Your task to perform on an android device: Go to Reddit.com Image 0: 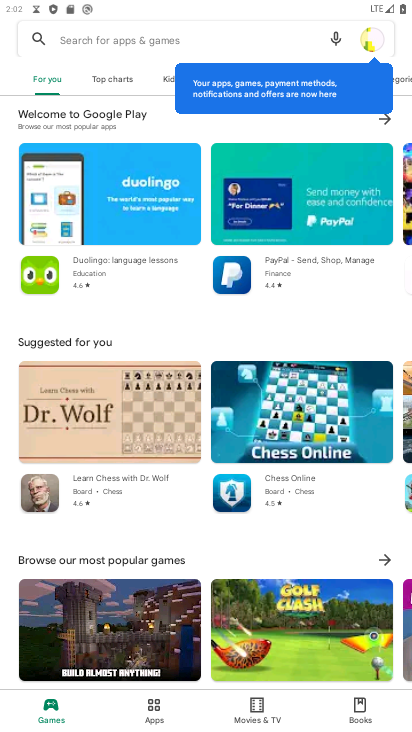
Step 0: press home button
Your task to perform on an android device: Go to Reddit.com Image 1: 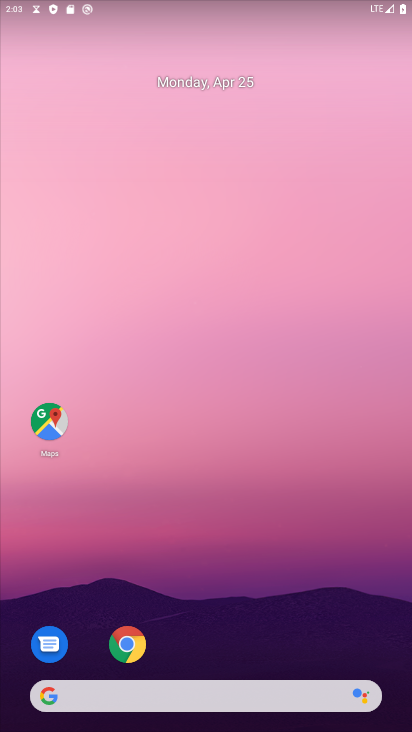
Step 1: click (131, 645)
Your task to perform on an android device: Go to Reddit.com Image 2: 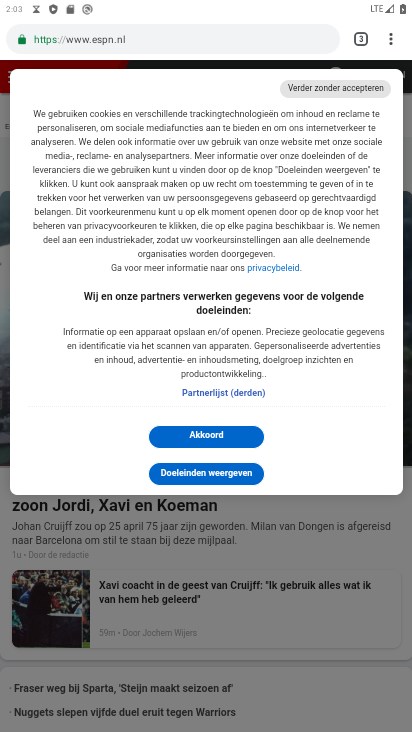
Step 2: click (100, 47)
Your task to perform on an android device: Go to Reddit.com Image 3: 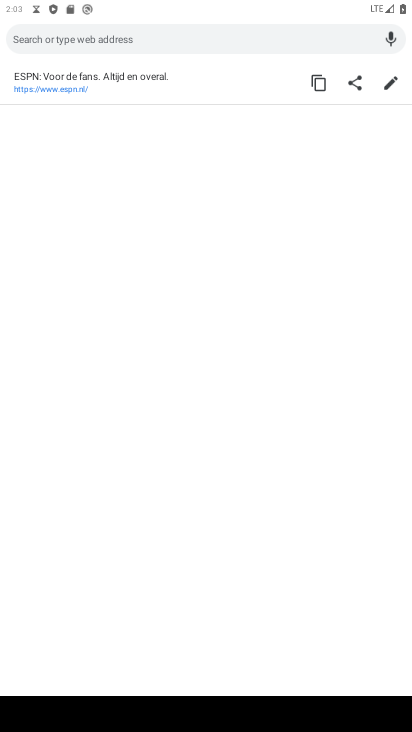
Step 3: type "reddit.com"
Your task to perform on an android device: Go to Reddit.com Image 4: 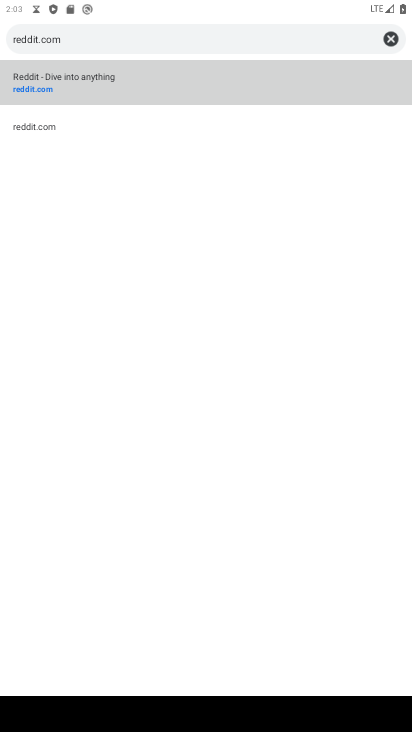
Step 4: click (32, 132)
Your task to perform on an android device: Go to Reddit.com Image 5: 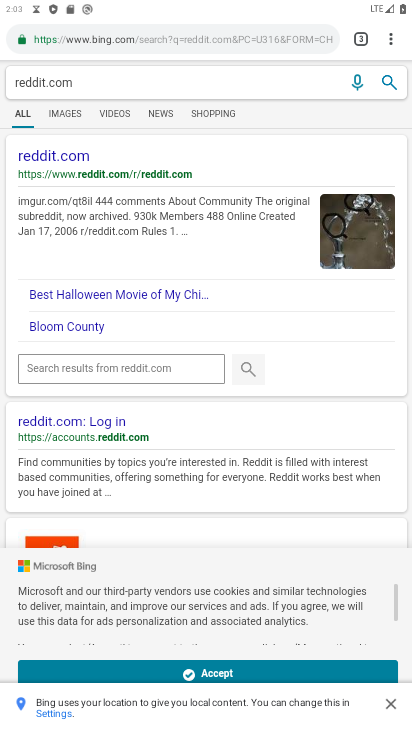
Step 5: click (40, 156)
Your task to perform on an android device: Go to Reddit.com Image 6: 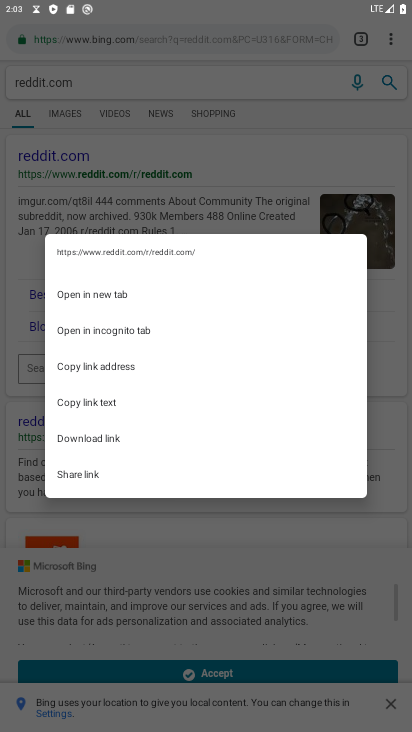
Step 6: click (395, 417)
Your task to perform on an android device: Go to Reddit.com Image 7: 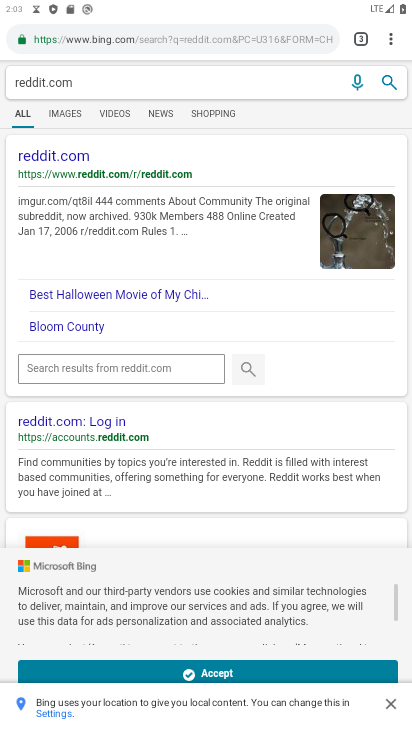
Step 7: drag from (128, 231) to (131, 95)
Your task to perform on an android device: Go to Reddit.com Image 8: 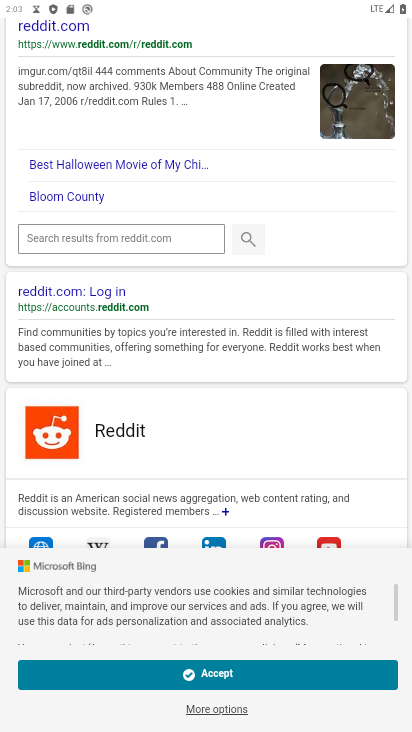
Step 8: click (88, 438)
Your task to perform on an android device: Go to Reddit.com Image 9: 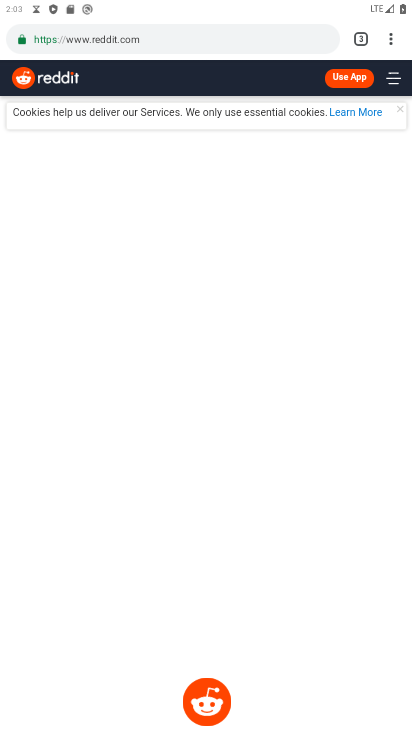
Step 9: task complete